Your task to perform on an android device: Go to calendar. Show me events next week Image 0: 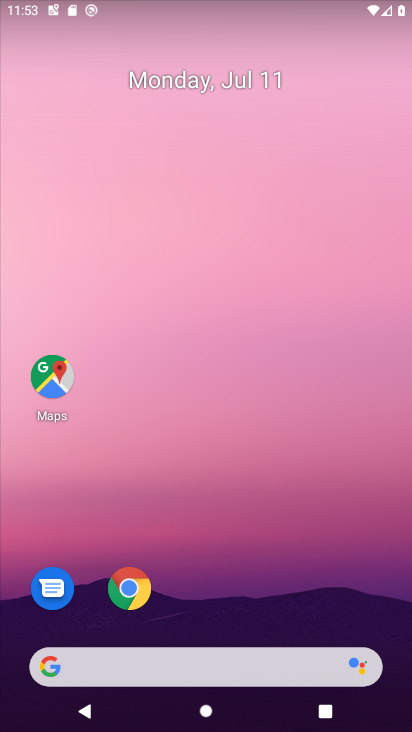
Step 0: drag from (221, 478) to (183, 14)
Your task to perform on an android device: Go to calendar. Show me events next week Image 1: 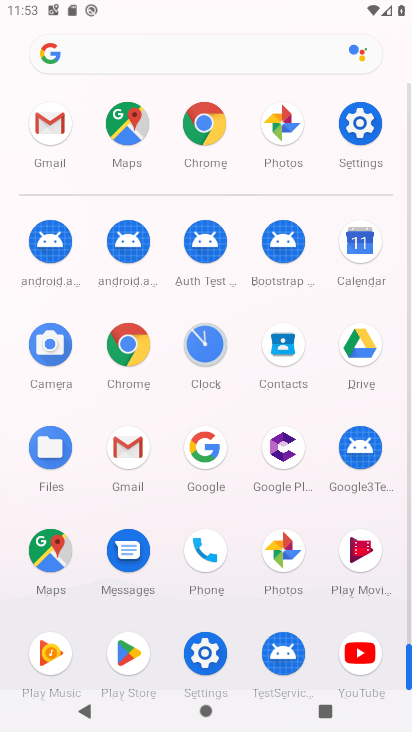
Step 1: click (357, 228)
Your task to perform on an android device: Go to calendar. Show me events next week Image 2: 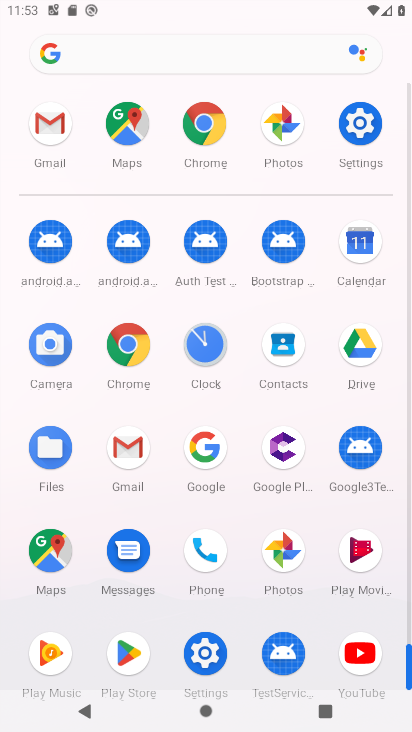
Step 2: click (360, 229)
Your task to perform on an android device: Go to calendar. Show me events next week Image 3: 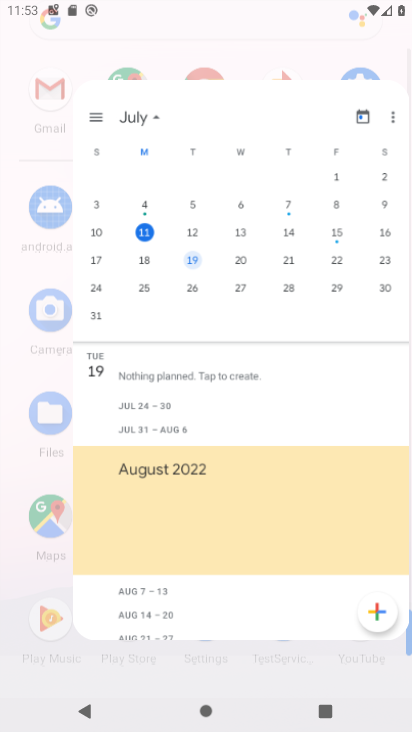
Step 3: click (361, 231)
Your task to perform on an android device: Go to calendar. Show me events next week Image 4: 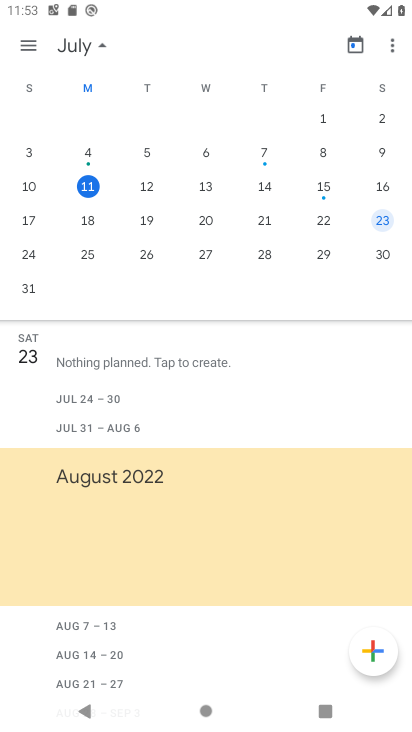
Step 4: click (89, 218)
Your task to perform on an android device: Go to calendar. Show me events next week Image 5: 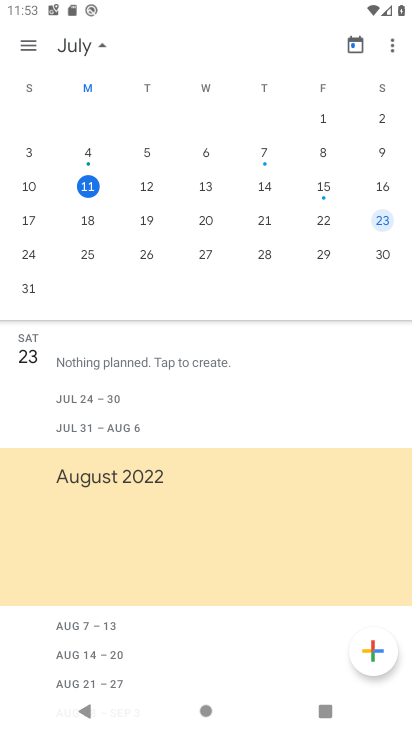
Step 5: click (89, 218)
Your task to perform on an android device: Go to calendar. Show me events next week Image 6: 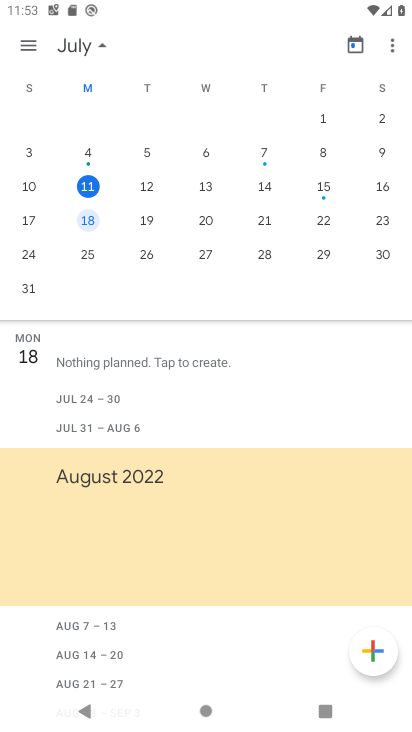
Step 6: click (93, 204)
Your task to perform on an android device: Go to calendar. Show me events next week Image 7: 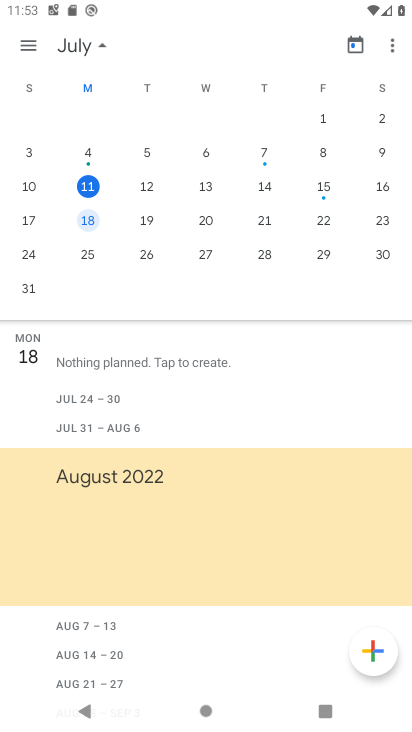
Step 7: click (64, 213)
Your task to perform on an android device: Go to calendar. Show me events next week Image 8: 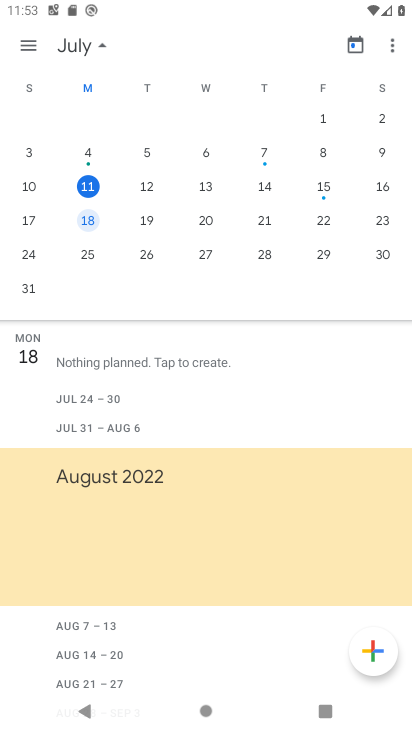
Step 8: click (64, 213)
Your task to perform on an android device: Go to calendar. Show me events next week Image 9: 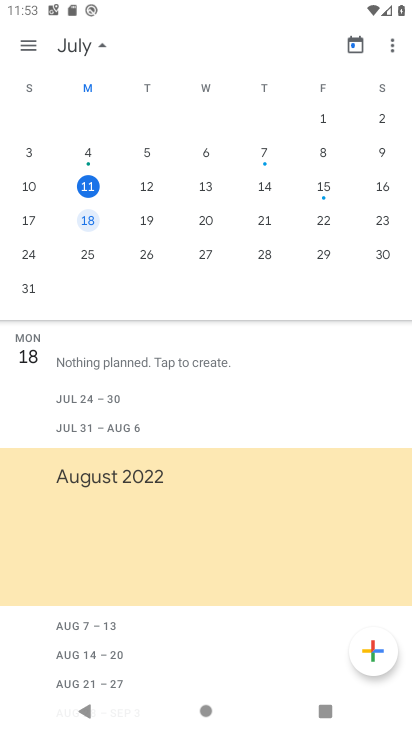
Step 9: click (97, 219)
Your task to perform on an android device: Go to calendar. Show me events next week Image 10: 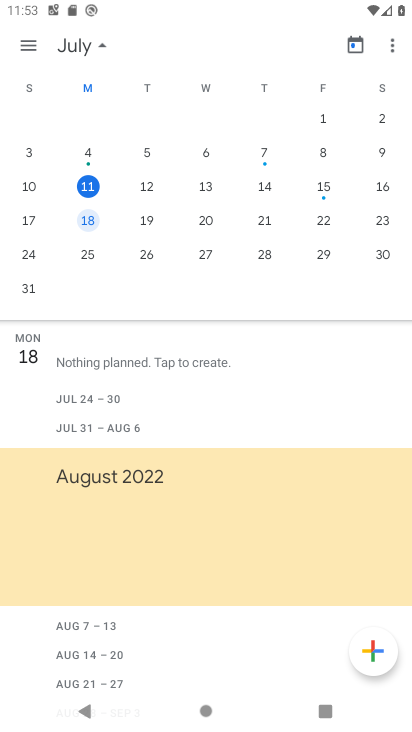
Step 10: click (94, 220)
Your task to perform on an android device: Go to calendar. Show me events next week Image 11: 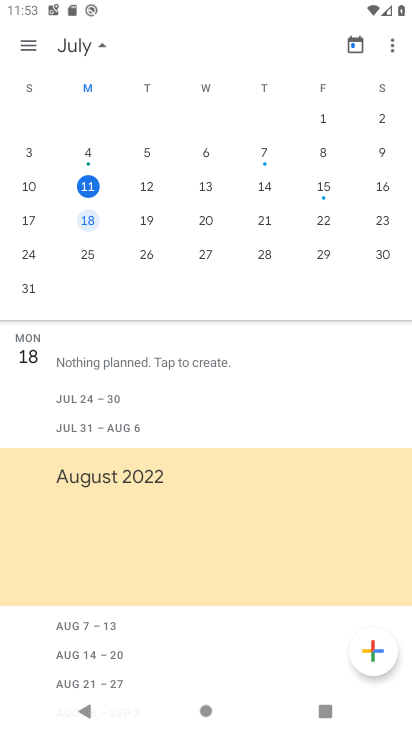
Step 11: click (94, 221)
Your task to perform on an android device: Go to calendar. Show me events next week Image 12: 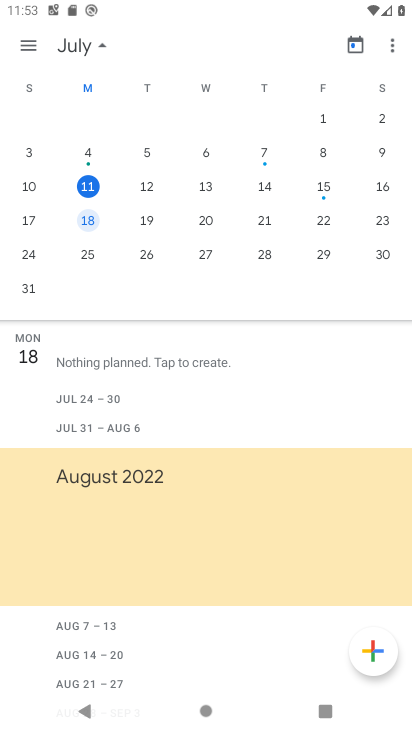
Step 12: click (95, 221)
Your task to perform on an android device: Go to calendar. Show me events next week Image 13: 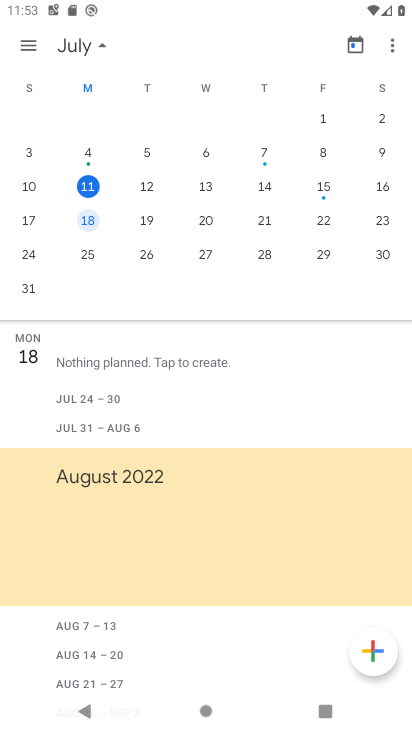
Step 13: task complete